Your task to perform on an android device: Go to battery settings Image 0: 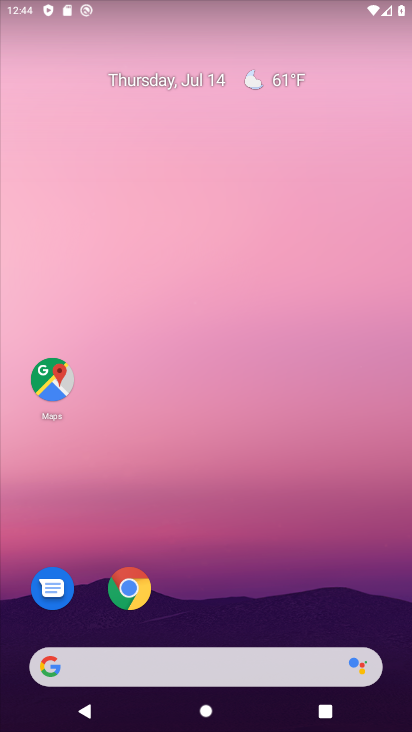
Step 0: drag from (214, 604) to (220, 364)
Your task to perform on an android device: Go to battery settings Image 1: 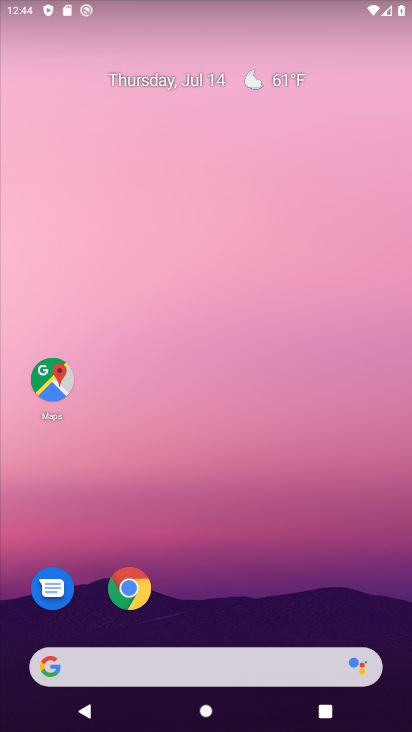
Step 1: drag from (215, 635) to (236, 217)
Your task to perform on an android device: Go to battery settings Image 2: 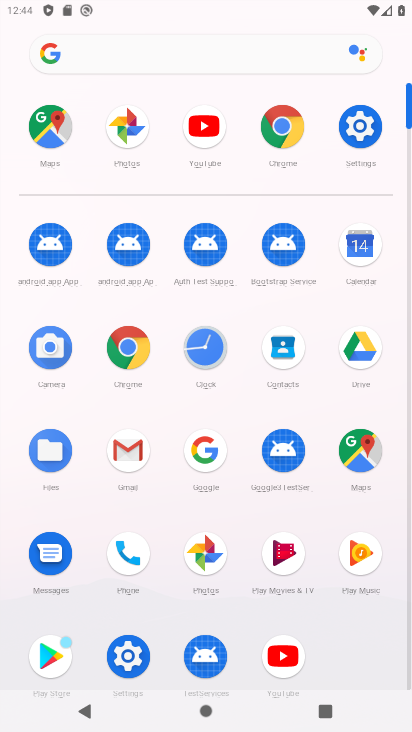
Step 2: click (353, 122)
Your task to perform on an android device: Go to battery settings Image 3: 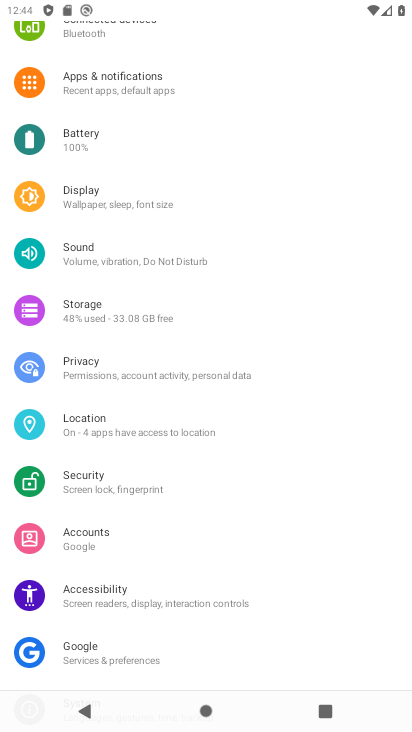
Step 3: click (97, 130)
Your task to perform on an android device: Go to battery settings Image 4: 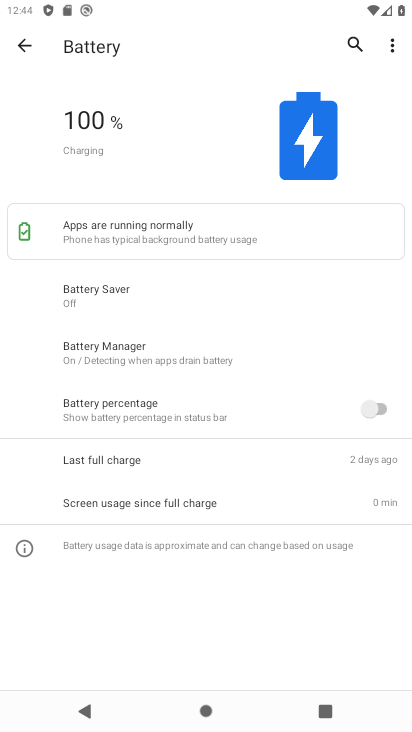
Step 4: task complete